Your task to perform on an android device: turn off notifications in google photos Image 0: 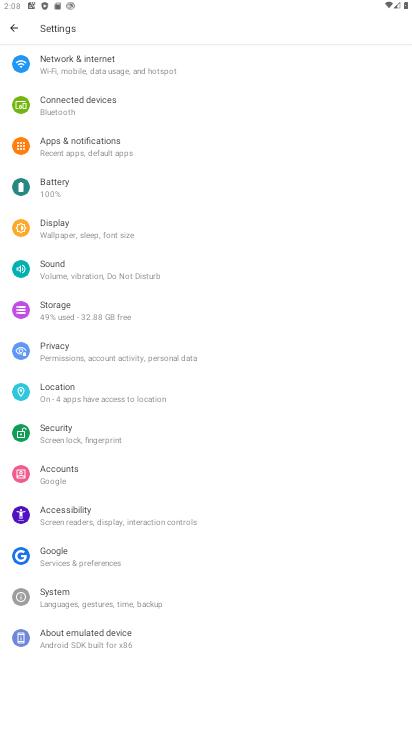
Step 0: click (80, 153)
Your task to perform on an android device: turn off notifications in google photos Image 1: 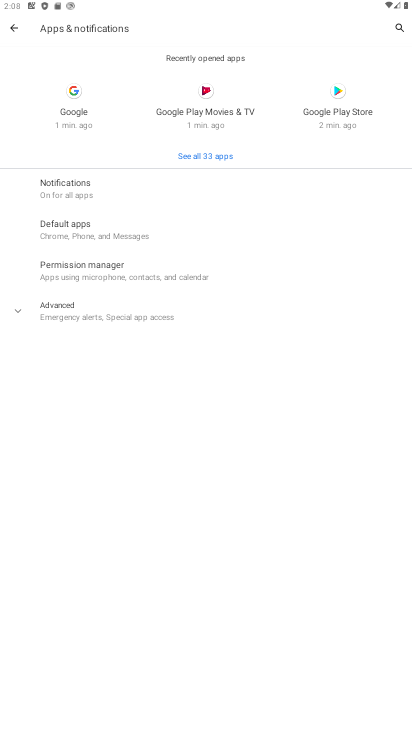
Step 1: click (89, 176)
Your task to perform on an android device: turn off notifications in google photos Image 2: 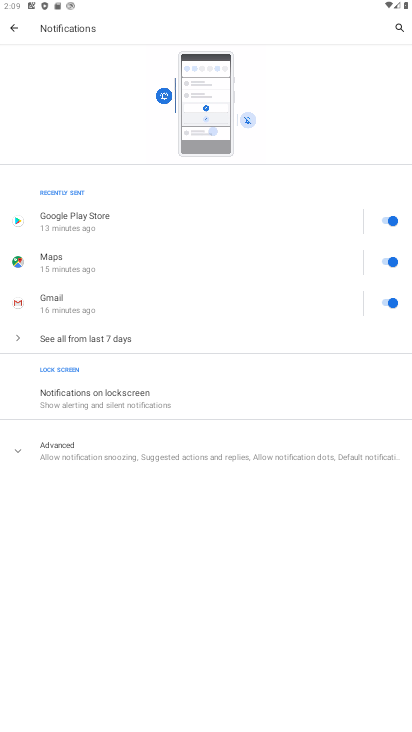
Step 2: click (16, 23)
Your task to perform on an android device: turn off notifications in google photos Image 3: 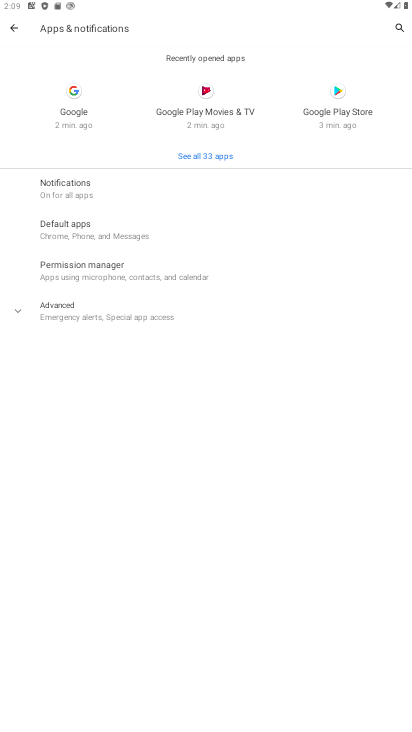
Step 3: click (204, 155)
Your task to perform on an android device: turn off notifications in google photos Image 4: 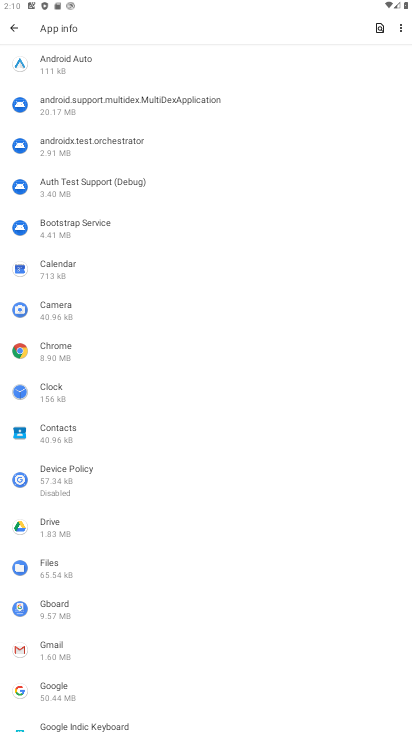
Step 4: drag from (61, 573) to (151, 9)
Your task to perform on an android device: turn off notifications in google photos Image 5: 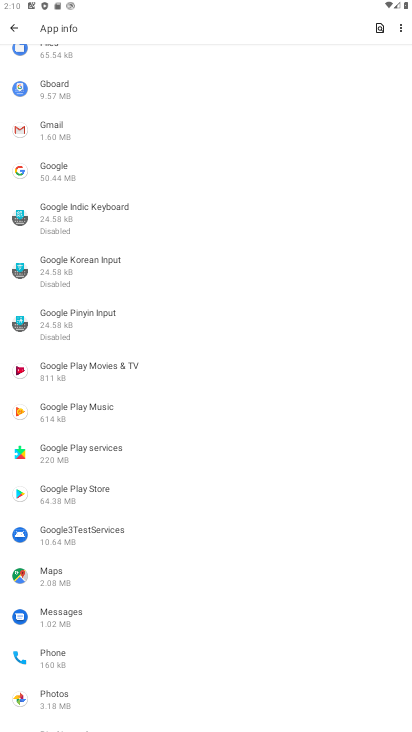
Step 5: click (134, 693)
Your task to perform on an android device: turn off notifications in google photos Image 6: 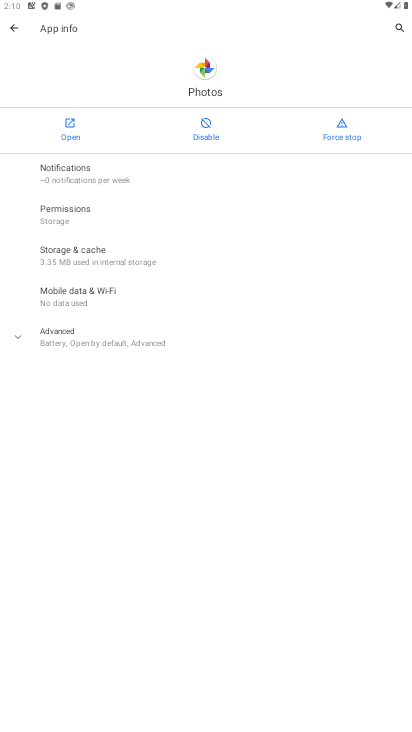
Step 6: click (86, 175)
Your task to perform on an android device: turn off notifications in google photos Image 7: 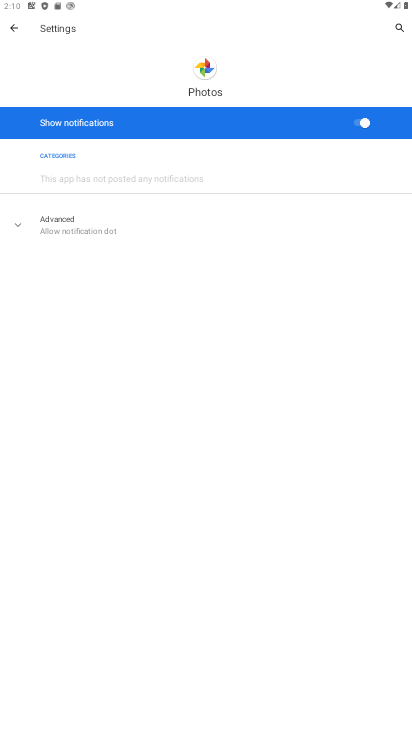
Step 7: click (355, 126)
Your task to perform on an android device: turn off notifications in google photos Image 8: 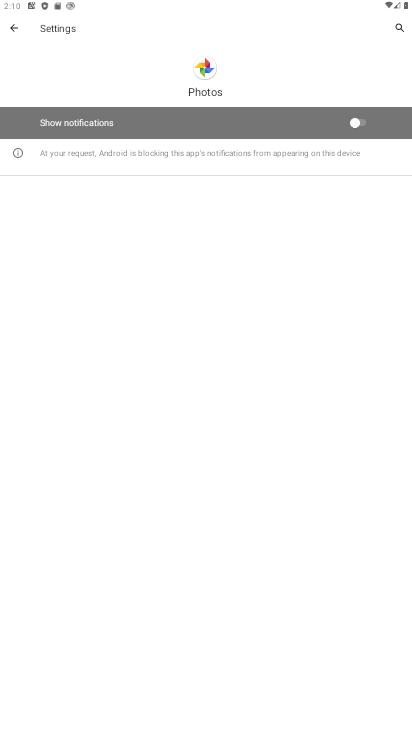
Step 8: task complete